Your task to perform on an android device: delete the emails in spam in the gmail app Image 0: 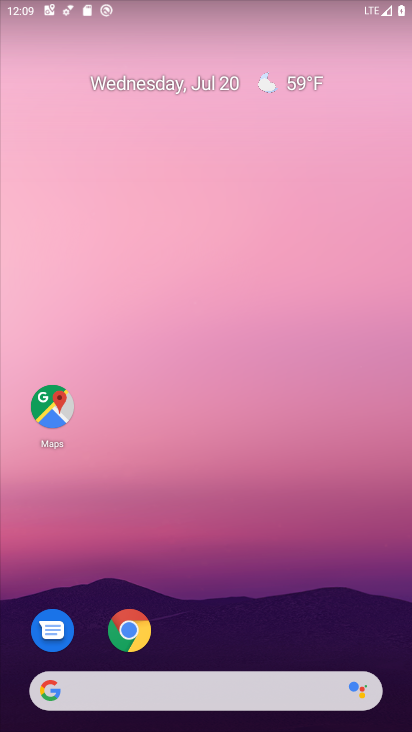
Step 0: drag from (380, 630) to (320, 219)
Your task to perform on an android device: delete the emails in spam in the gmail app Image 1: 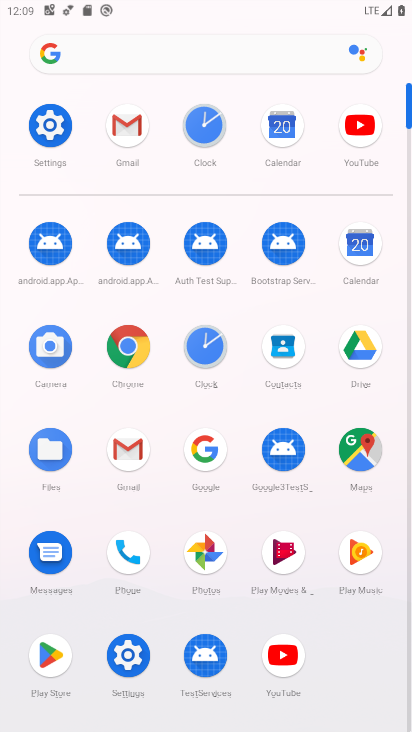
Step 1: click (125, 449)
Your task to perform on an android device: delete the emails in spam in the gmail app Image 2: 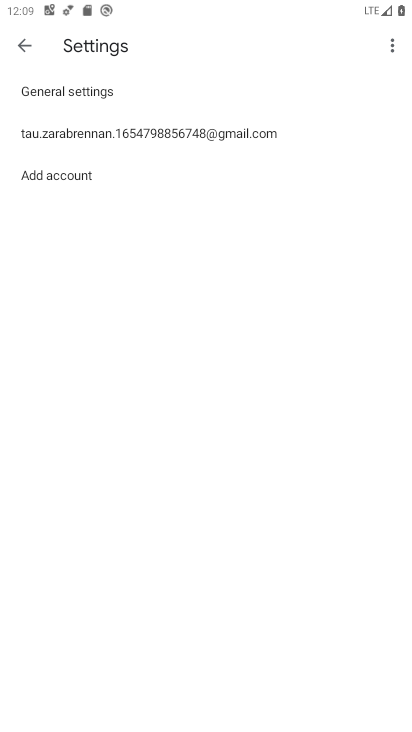
Step 2: press back button
Your task to perform on an android device: delete the emails in spam in the gmail app Image 3: 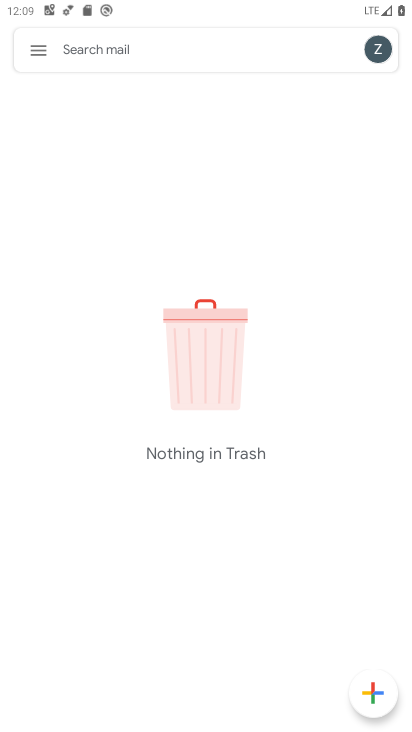
Step 3: click (36, 54)
Your task to perform on an android device: delete the emails in spam in the gmail app Image 4: 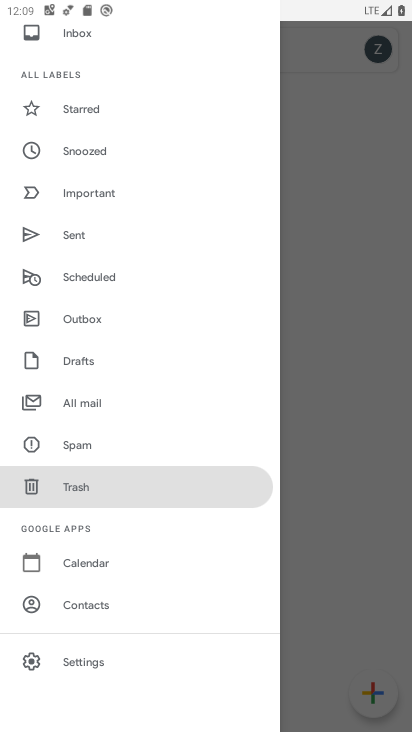
Step 4: click (78, 447)
Your task to perform on an android device: delete the emails in spam in the gmail app Image 5: 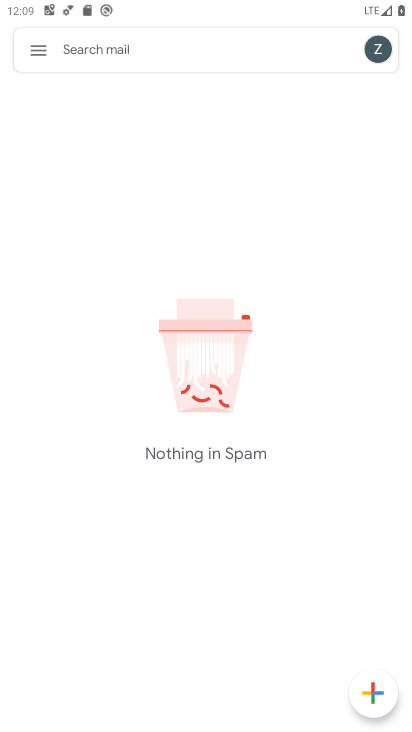
Step 5: task complete